Your task to perform on an android device: check google app version Image 0: 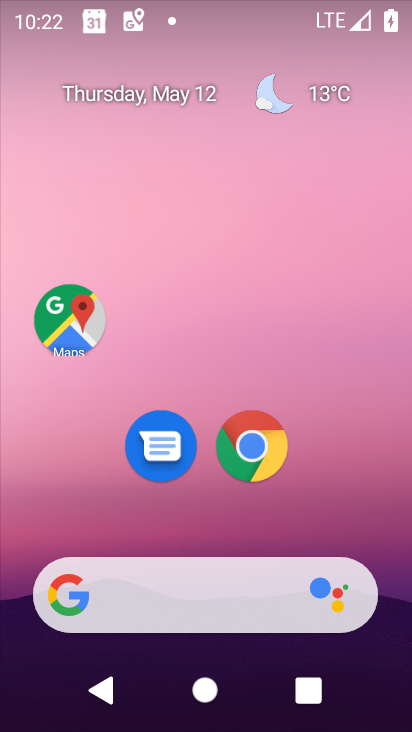
Step 0: drag from (194, 624) to (339, 42)
Your task to perform on an android device: check google app version Image 1: 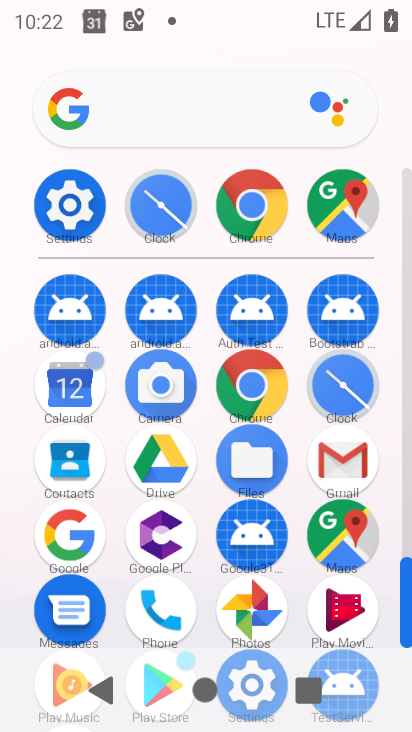
Step 1: click (267, 396)
Your task to perform on an android device: check google app version Image 2: 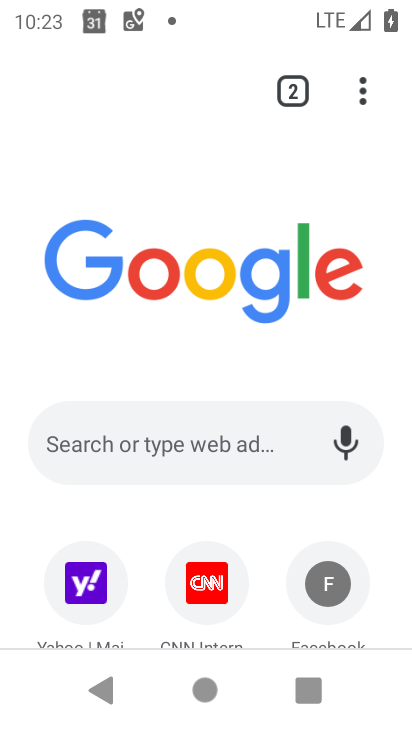
Step 2: task complete